Your task to perform on an android device: Open maps Image 0: 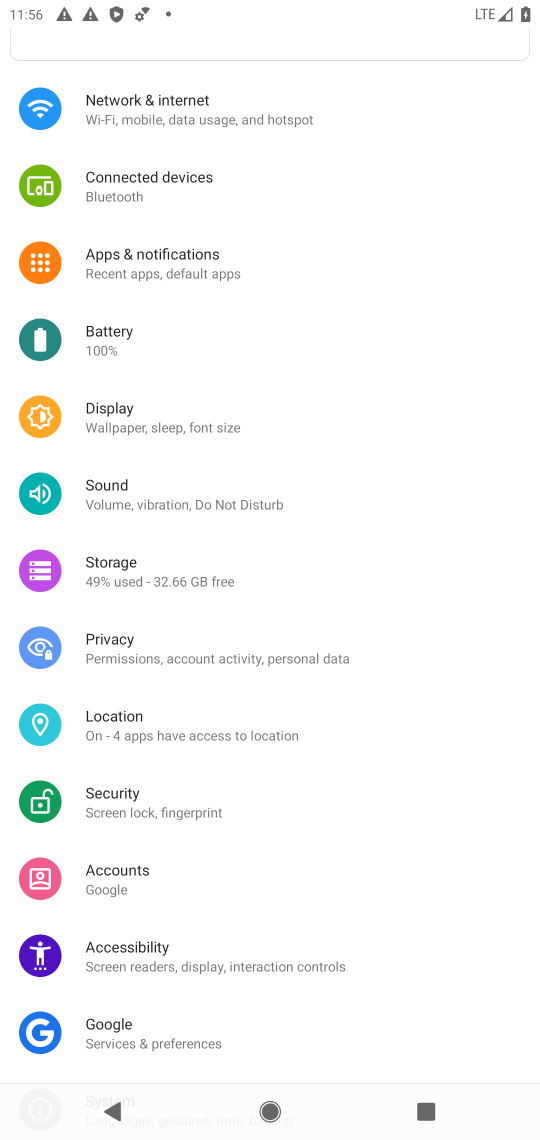
Step 0: press home button
Your task to perform on an android device: Open maps Image 1: 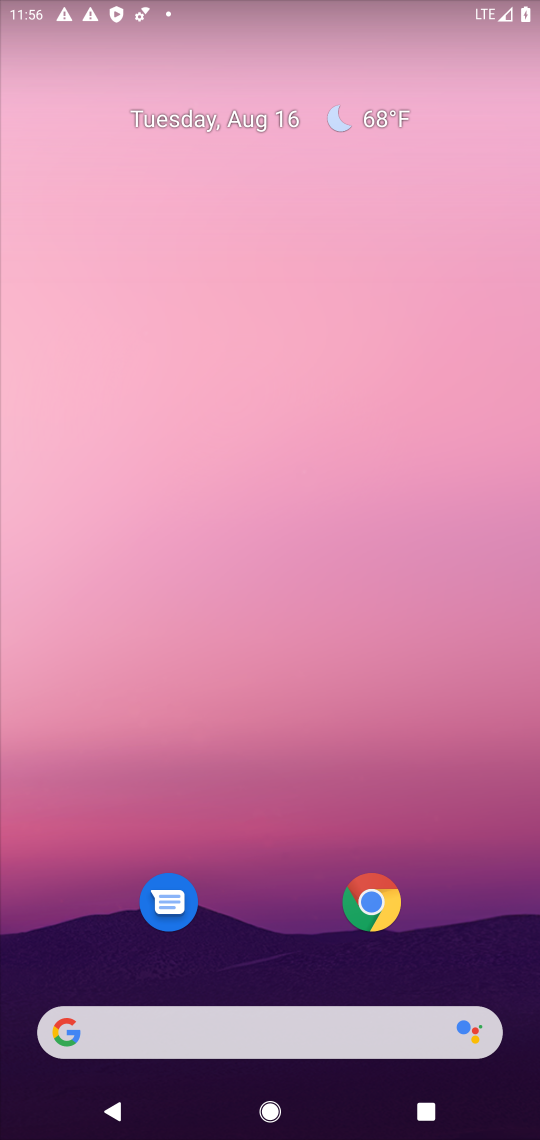
Step 1: drag from (278, 958) to (431, 6)
Your task to perform on an android device: Open maps Image 2: 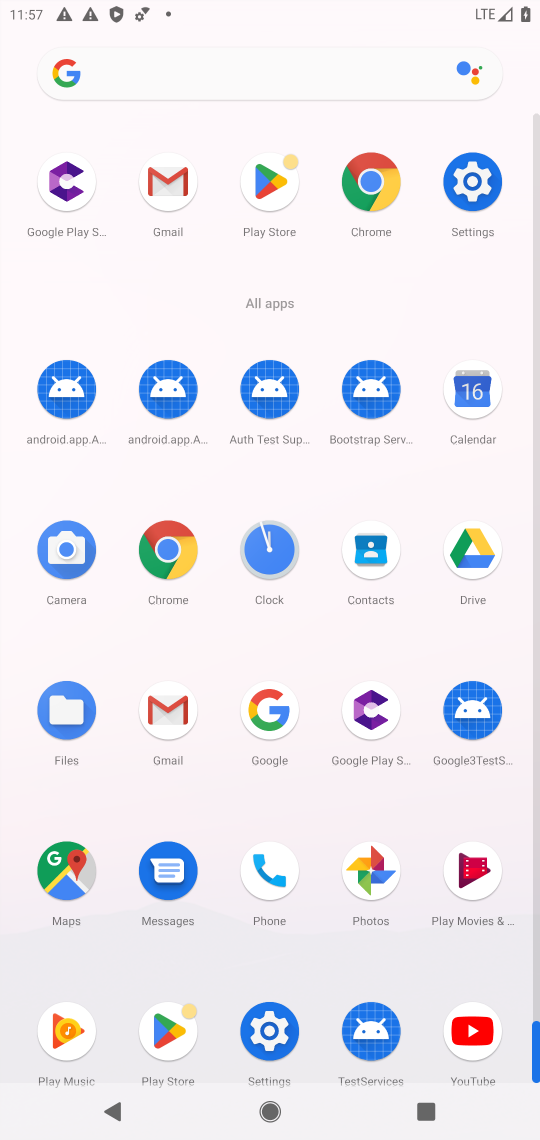
Step 2: click (82, 863)
Your task to perform on an android device: Open maps Image 3: 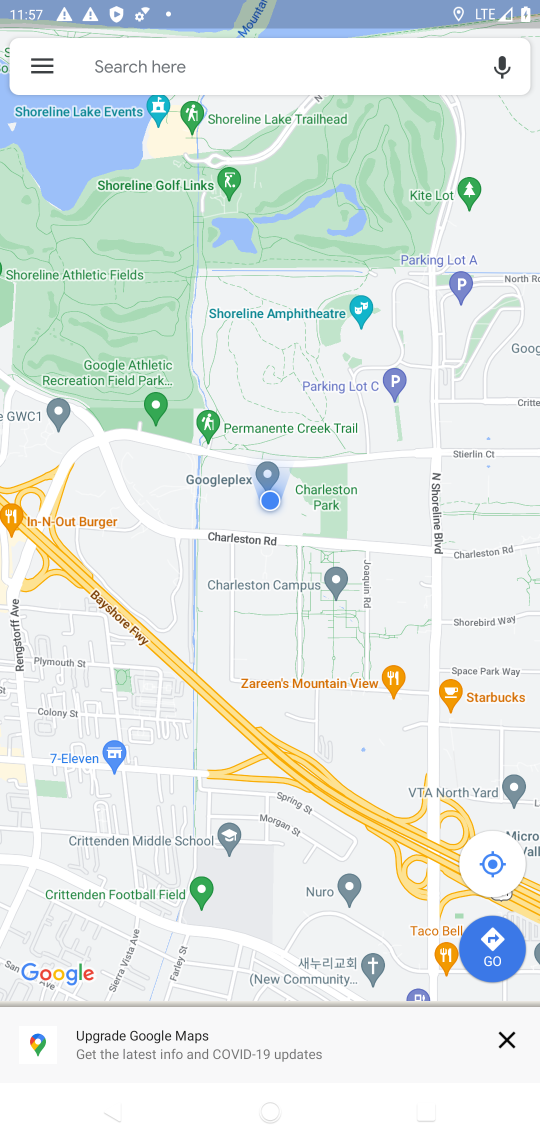
Step 3: task complete